Your task to perform on an android device: toggle notification dots Image 0: 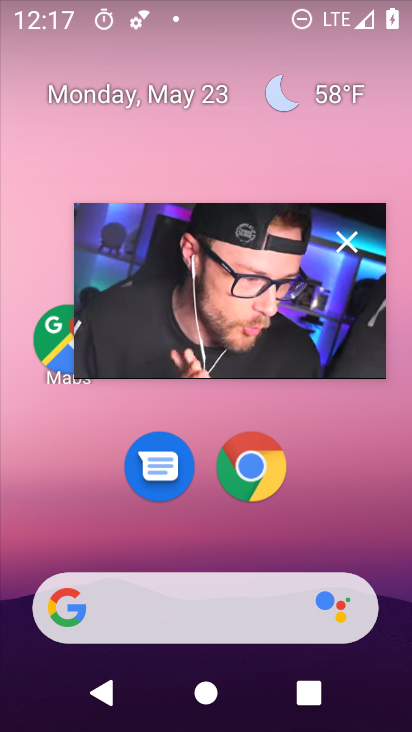
Step 0: click (346, 247)
Your task to perform on an android device: toggle notification dots Image 1: 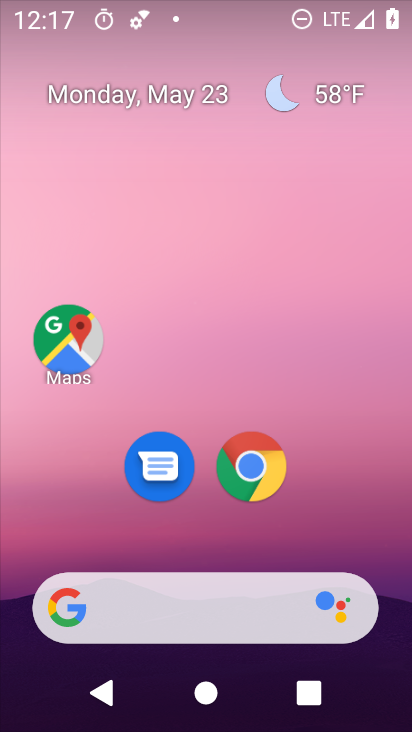
Step 1: drag from (186, 562) to (232, 70)
Your task to perform on an android device: toggle notification dots Image 2: 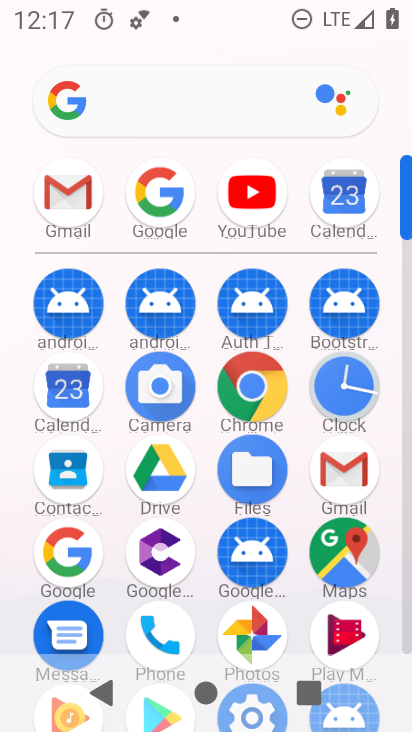
Step 2: drag from (214, 588) to (214, 161)
Your task to perform on an android device: toggle notification dots Image 3: 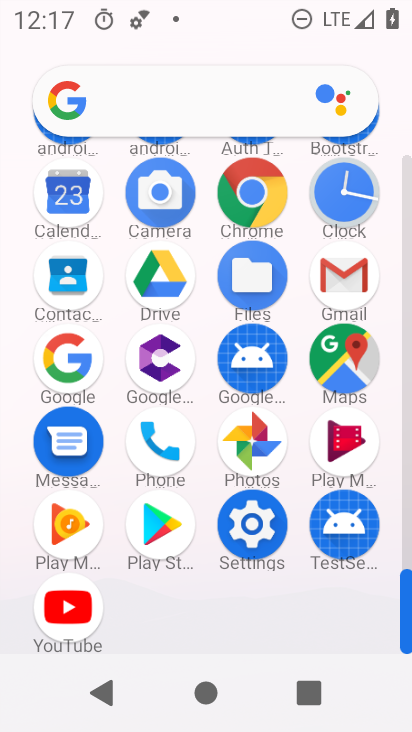
Step 3: click (257, 507)
Your task to perform on an android device: toggle notification dots Image 4: 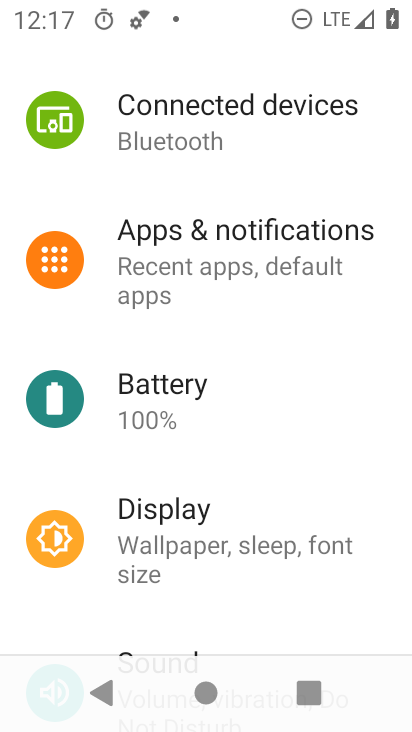
Step 4: click (236, 223)
Your task to perform on an android device: toggle notification dots Image 5: 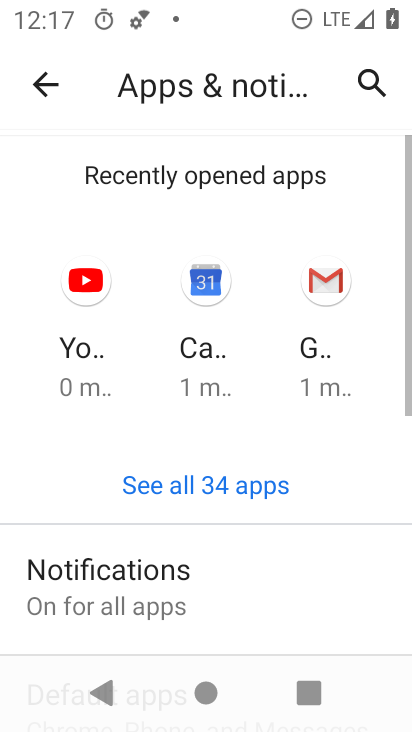
Step 5: click (191, 598)
Your task to perform on an android device: toggle notification dots Image 6: 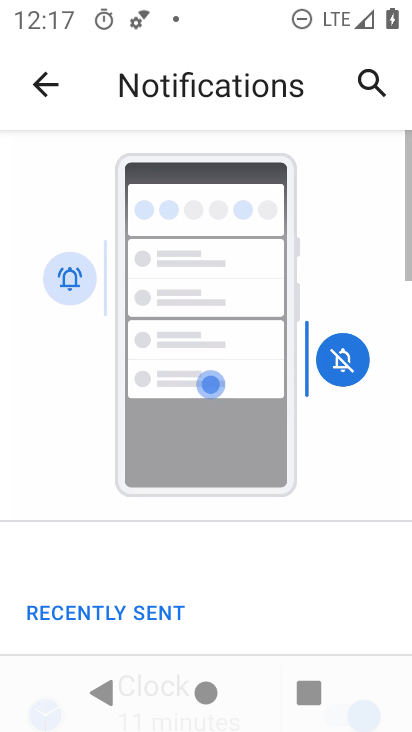
Step 6: drag from (239, 544) to (278, 111)
Your task to perform on an android device: toggle notification dots Image 7: 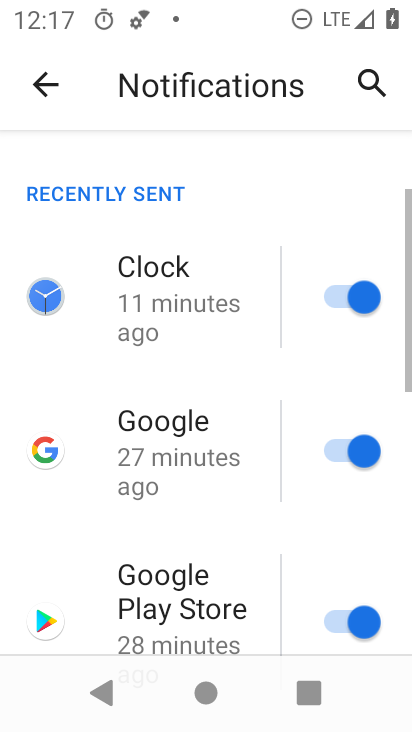
Step 7: drag from (269, 629) to (297, 97)
Your task to perform on an android device: toggle notification dots Image 8: 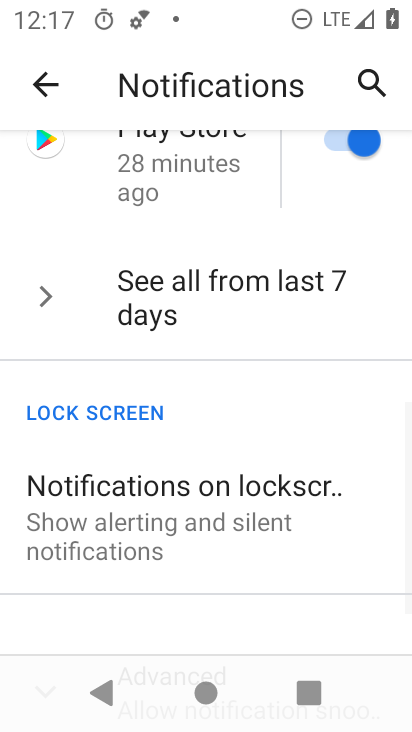
Step 8: drag from (279, 603) to (271, 199)
Your task to perform on an android device: toggle notification dots Image 9: 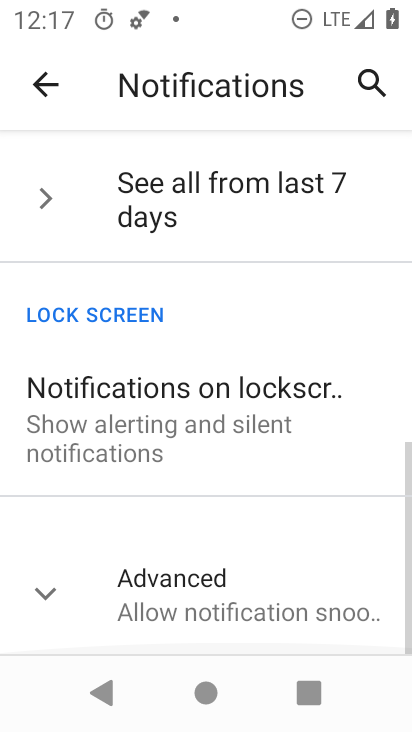
Step 9: click (165, 593)
Your task to perform on an android device: toggle notification dots Image 10: 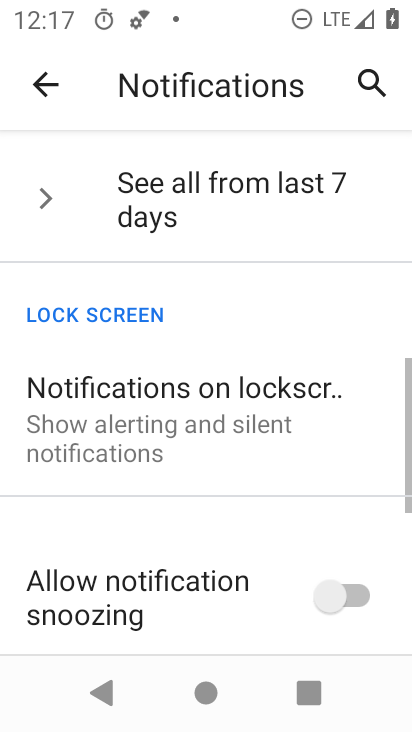
Step 10: drag from (283, 513) to (303, 168)
Your task to perform on an android device: toggle notification dots Image 11: 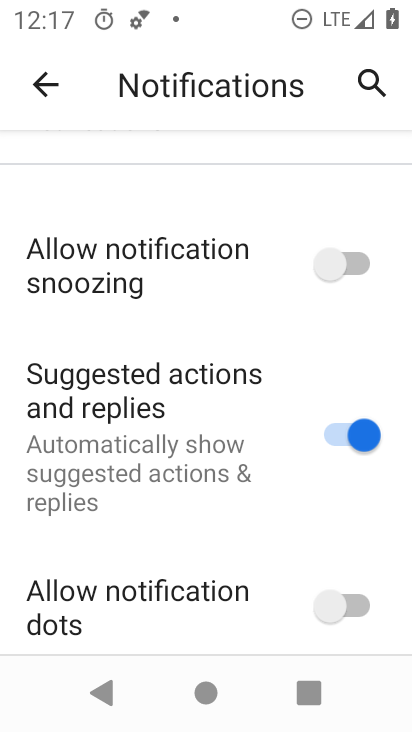
Step 11: click (340, 600)
Your task to perform on an android device: toggle notification dots Image 12: 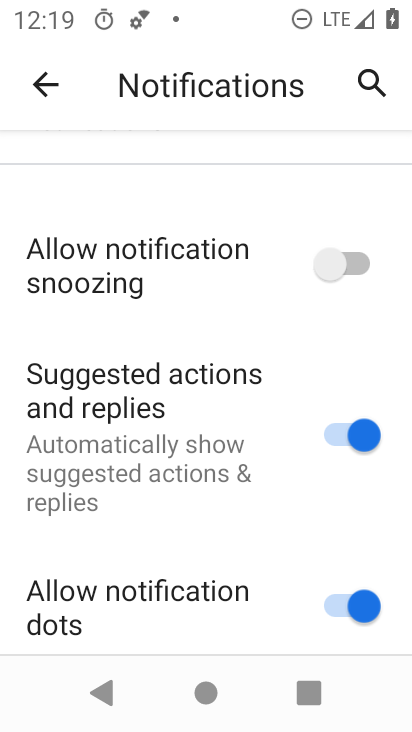
Step 12: task complete